Your task to perform on an android device: Check the weather Image 0: 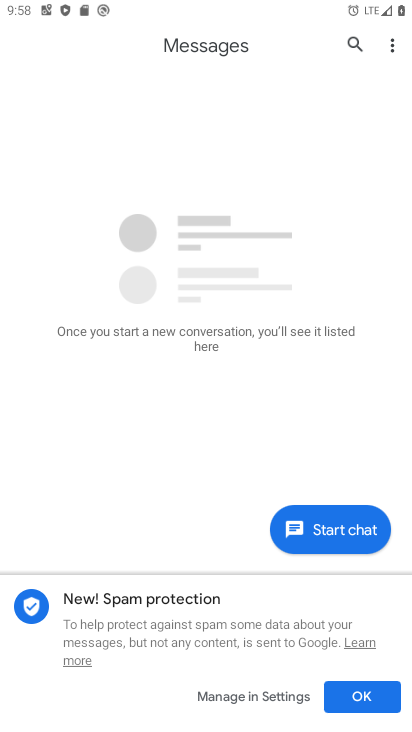
Step 0: press home button
Your task to perform on an android device: Check the weather Image 1: 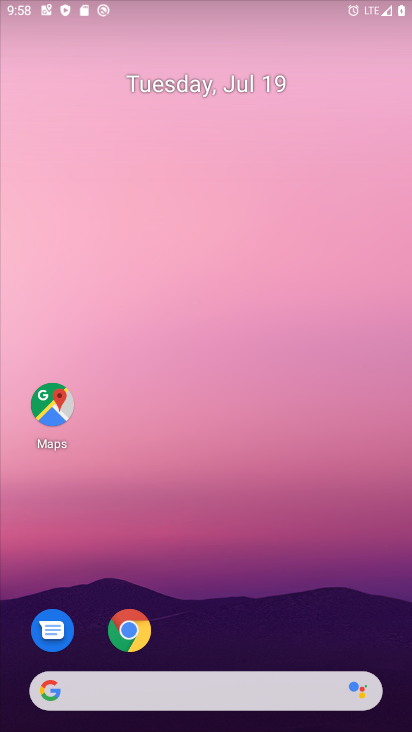
Step 1: drag from (225, 664) to (241, 120)
Your task to perform on an android device: Check the weather Image 2: 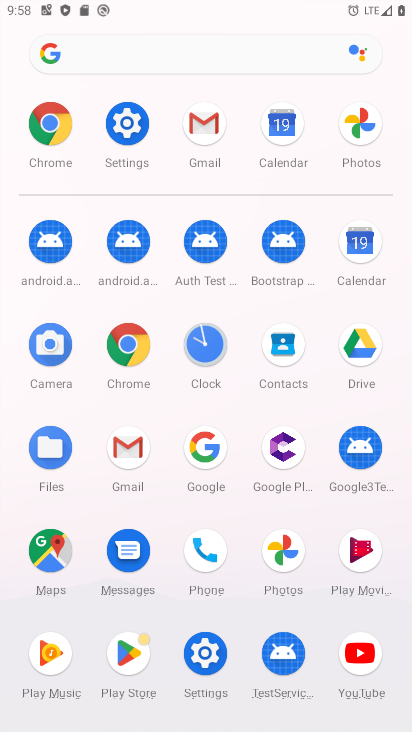
Step 2: click (207, 451)
Your task to perform on an android device: Check the weather Image 3: 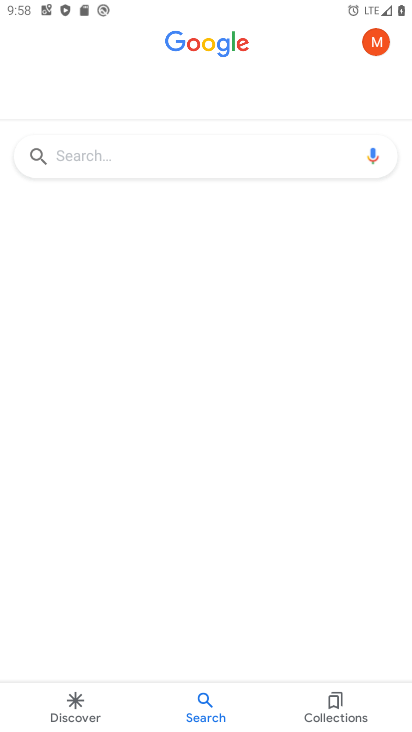
Step 3: click (153, 152)
Your task to perform on an android device: Check the weather Image 4: 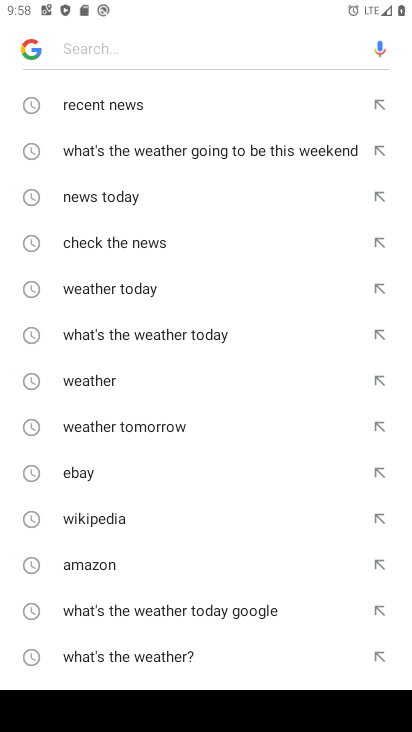
Step 4: click (114, 371)
Your task to perform on an android device: Check the weather Image 5: 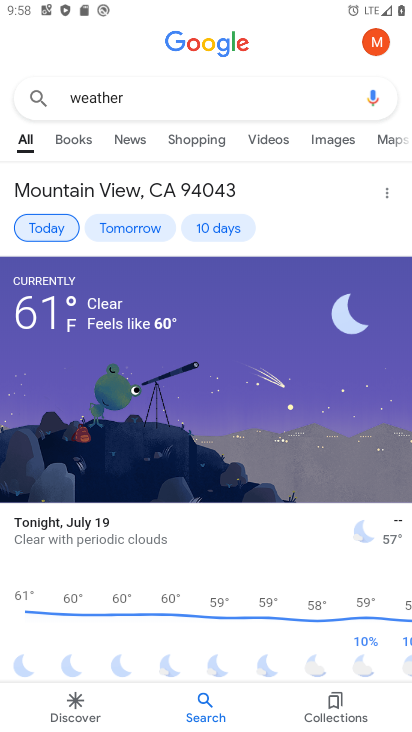
Step 5: task complete